Your task to perform on an android device: turn on notifications settings in the gmail app Image 0: 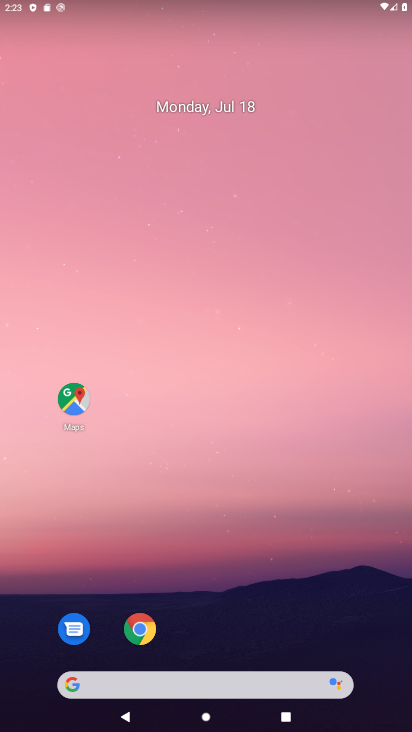
Step 0: drag from (216, 643) to (264, 176)
Your task to perform on an android device: turn on notifications settings in the gmail app Image 1: 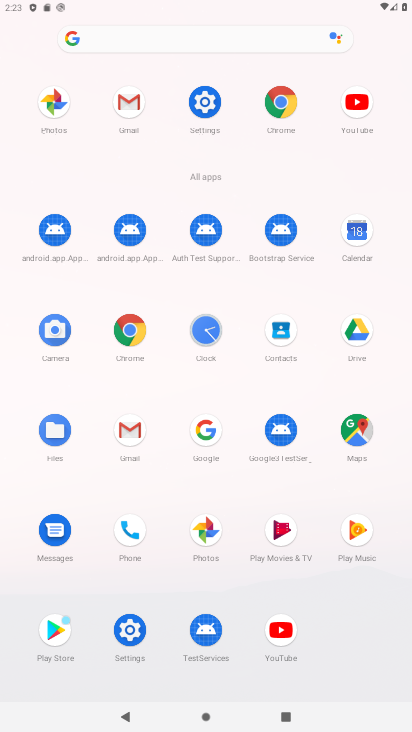
Step 1: click (134, 438)
Your task to perform on an android device: turn on notifications settings in the gmail app Image 2: 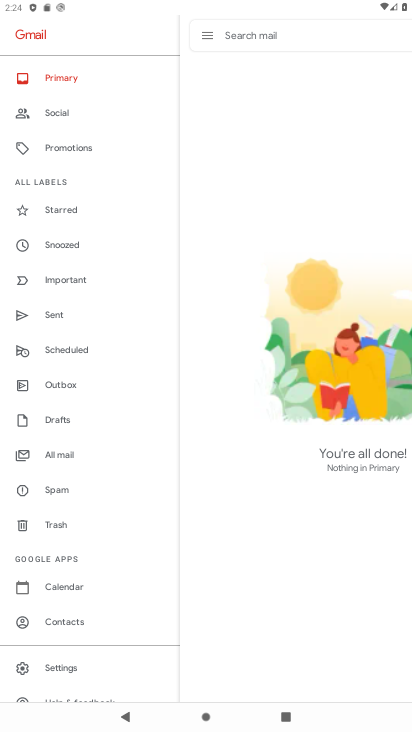
Step 2: click (85, 667)
Your task to perform on an android device: turn on notifications settings in the gmail app Image 3: 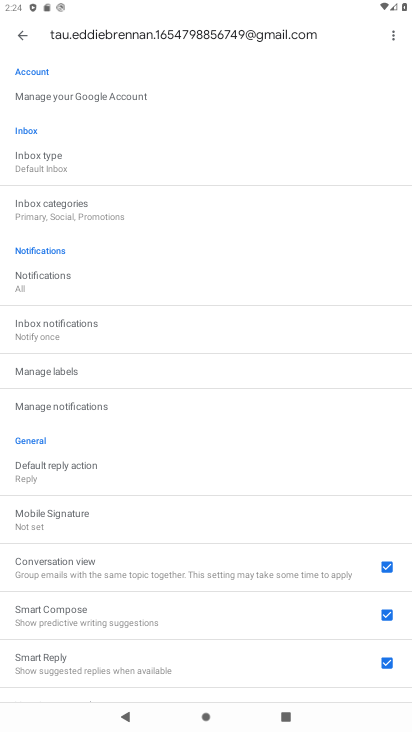
Step 3: click (109, 406)
Your task to perform on an android device: turn on notifications settings in the gmail app Image 4: 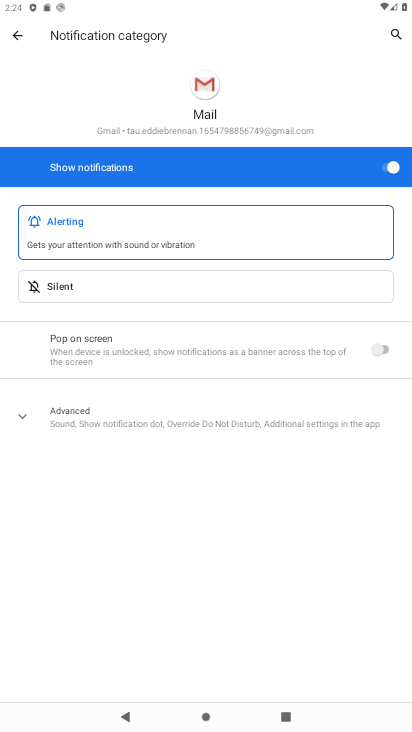
Step 4: task complete